Your task to perform on an android device: check data usage Image 0: 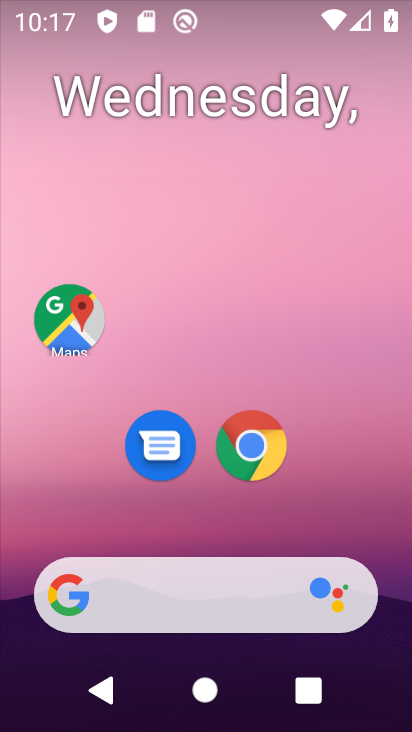
Step 0: drag from (223, 501) to (307, 79)
Your task to perform on an android device: check data usage Image 1: 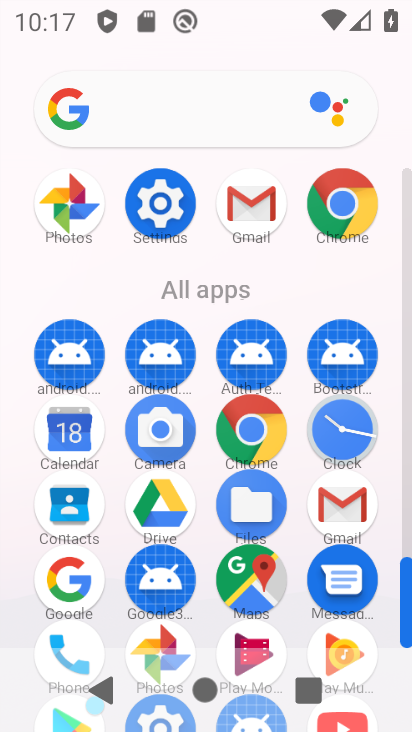
Step 1: click (152, 200)
Your task to perform on an android device: check data usage Image 2: 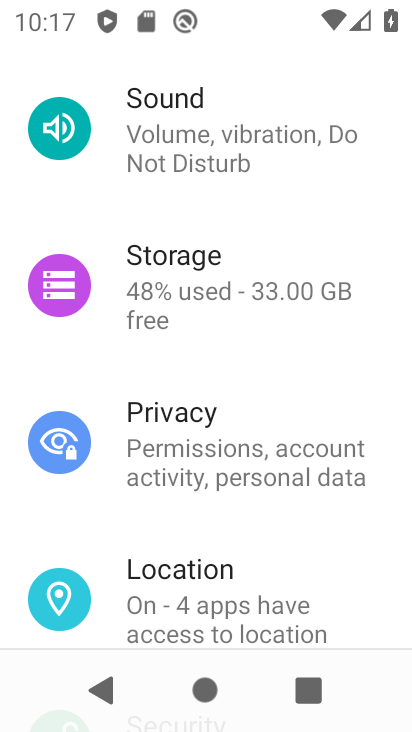
Step 2: drag from (185, 201) to (193, 621)
Your task to perform on an android device: check data usage Image 3: 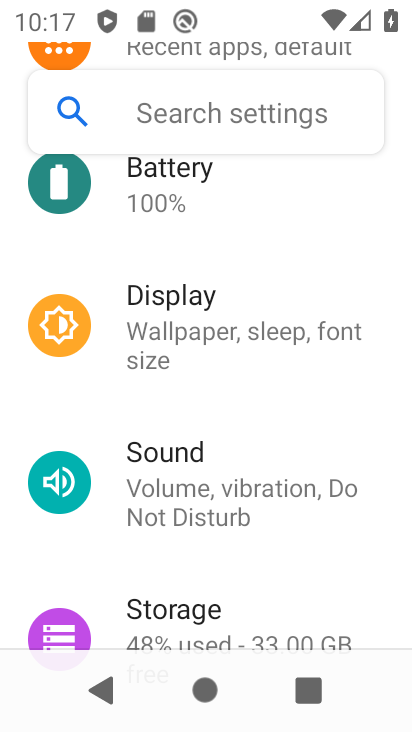
Step 3: drag from (199, 216) to (194, 697)
Your task to perform on an android device: check data usage Image 4: 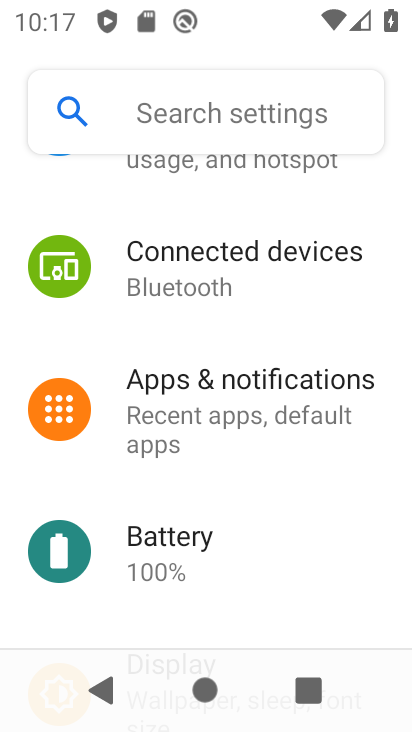
Step 4: drag from (207, 296) to (196, 670)
Your task to perform on an android device: check data usage Image 5: 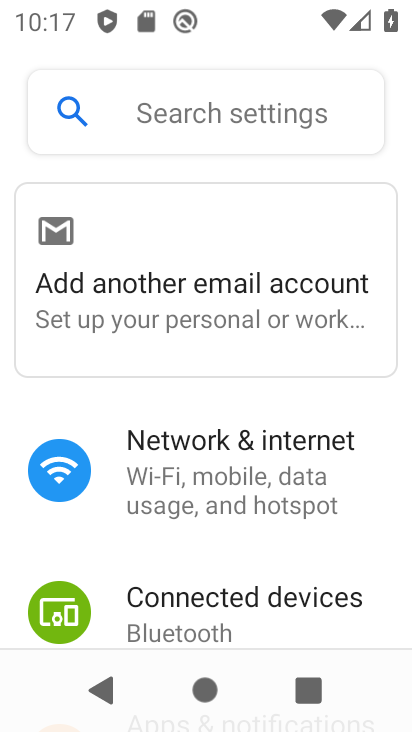
Step 5: drag from (242, 526) to (299, 155)
Your task to perform on an android device: check data usage Image 6: 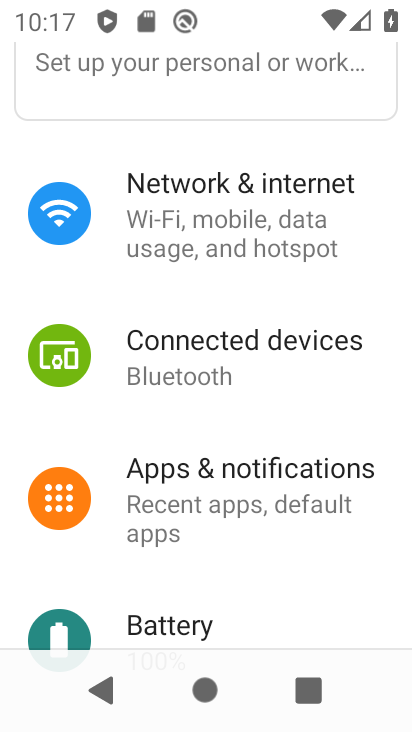
Step 6: click (176, 218)
Your task to perform on an android device: check data usage Image 7: 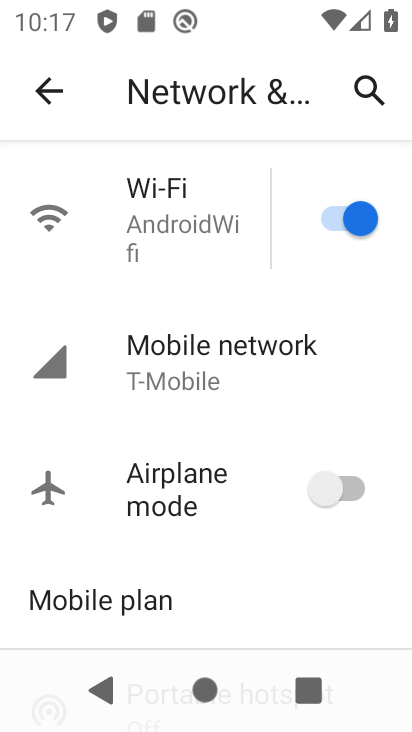
Step 7: drag from (192, 581) to (228, 436)
Your task to perform on an android device: check data usage Image 8: 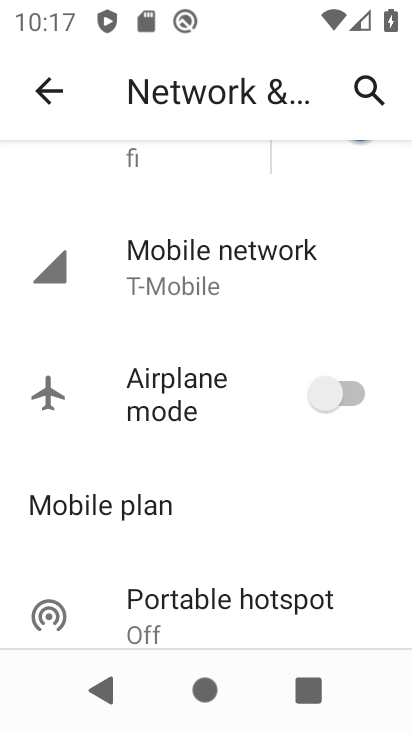
Step 8: click (179, 259)
Your task to perform on an android device: check data usage Image 9: 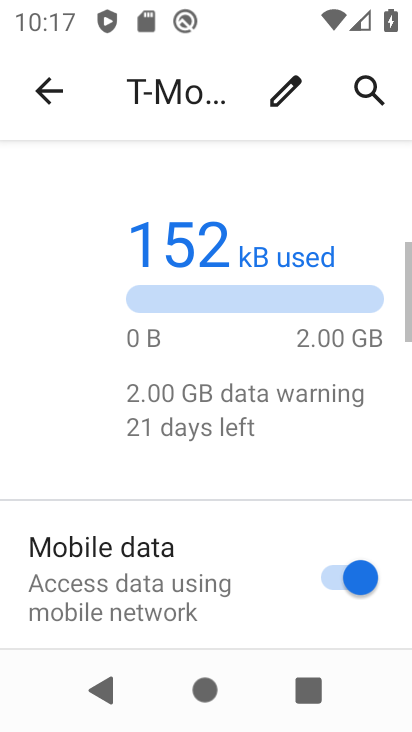
Step 9: task complete